Your task to perform on an android device: clear all cookies in the chrome app Image 0: 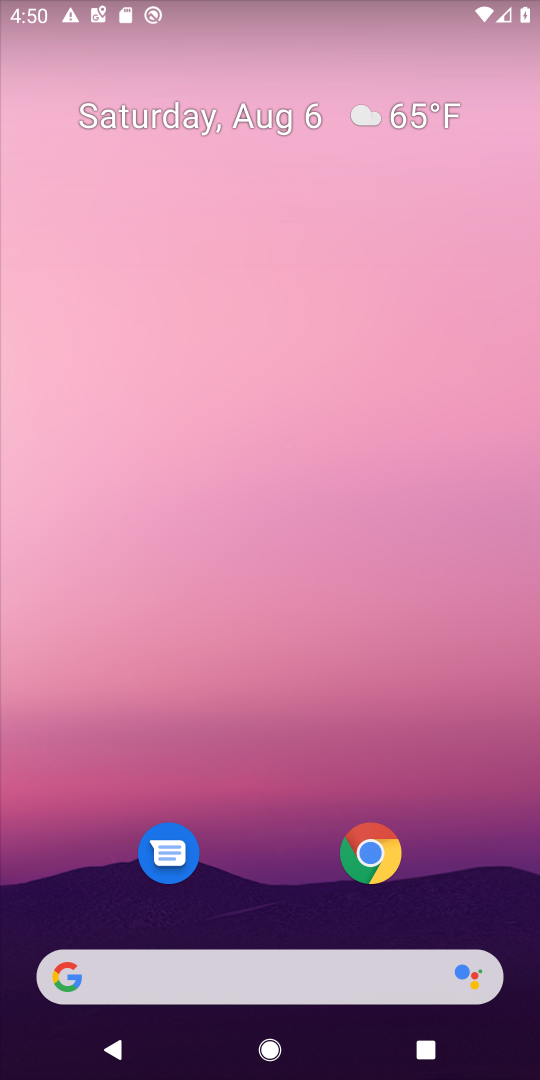
Step 0: click (355, 851)
Your task to perform on an android device: clear all cookies in the chrome app Image 1: 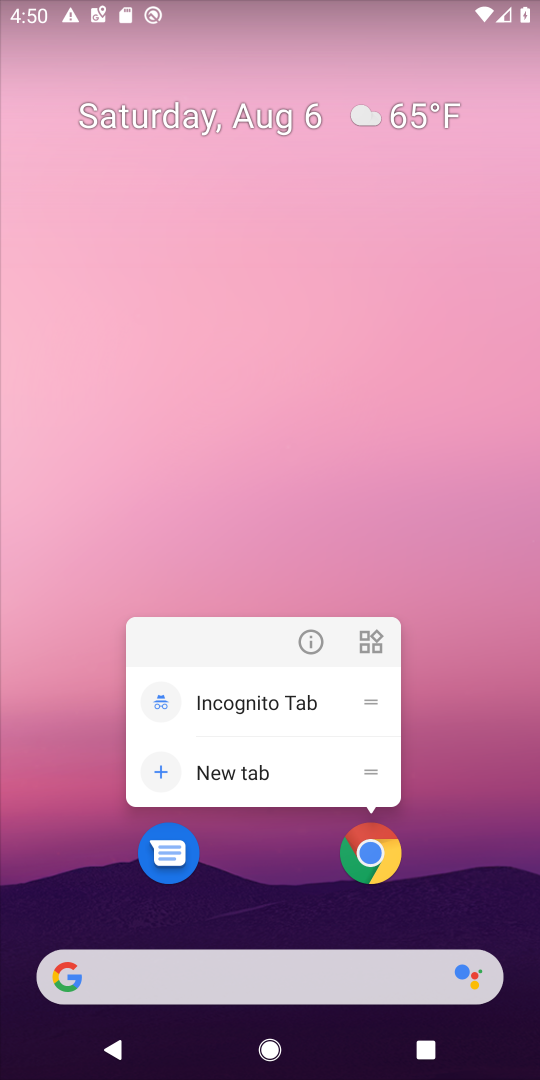
Step 1: click (368, 857)
Your task to perform on an android device: clear all cookies in the chrome app Image 2: 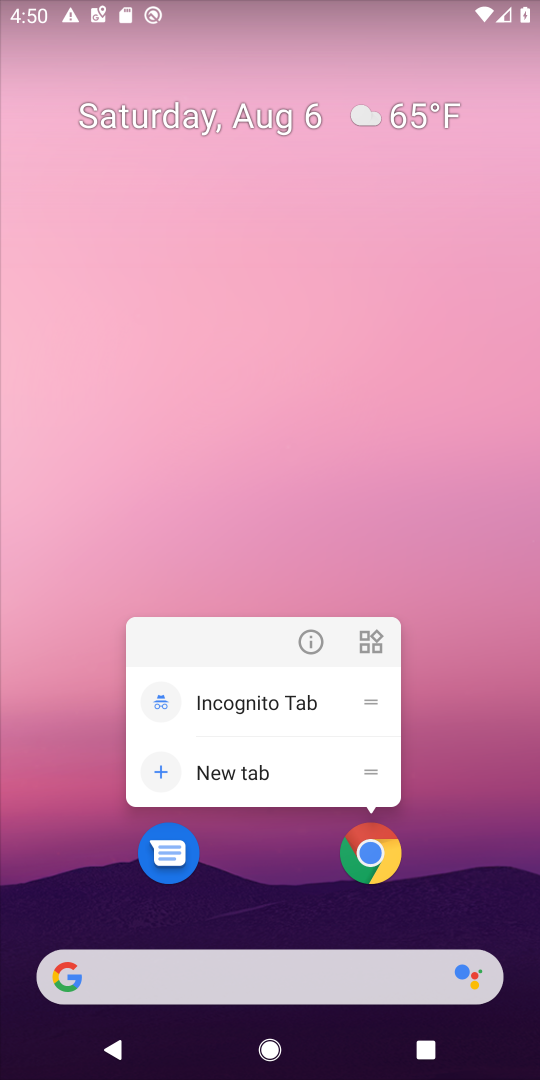
Step 2: click (388, 846)
Your task to perform on an android device: clear all cookies in the chrome app Image 3: 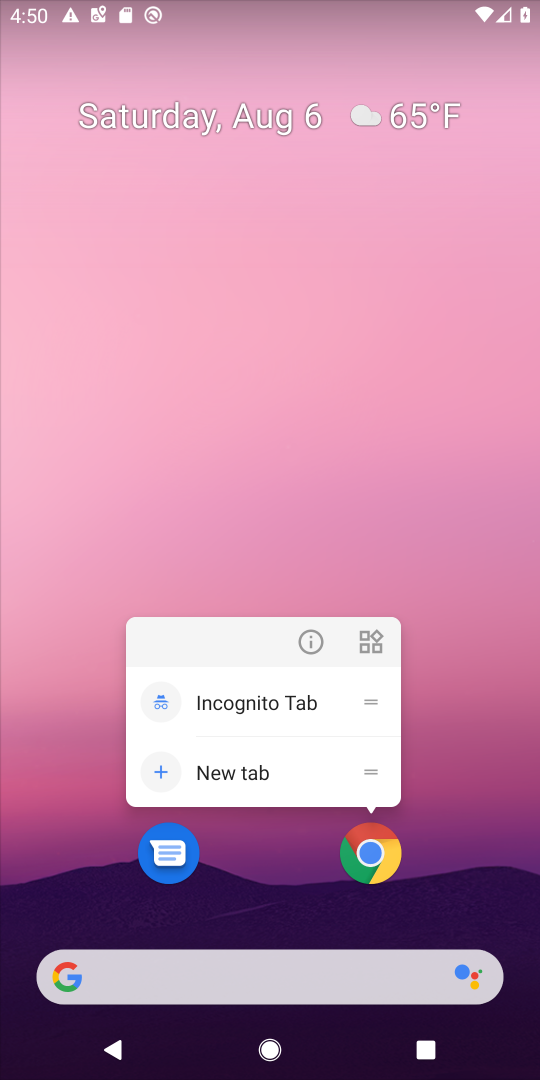
Step 3: click (364, 857)
Your task to perform on an android device: clear all cookies in the chrome app Image 4: 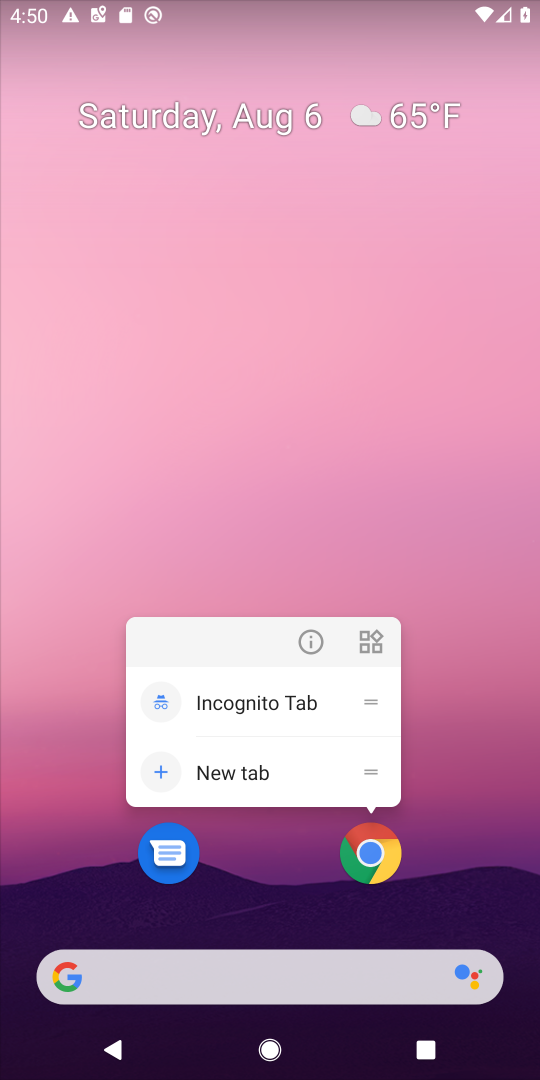
Step 4: click (372, 864)
Your task to perform on an android device: clear all cookies in the chrome app Image 5: 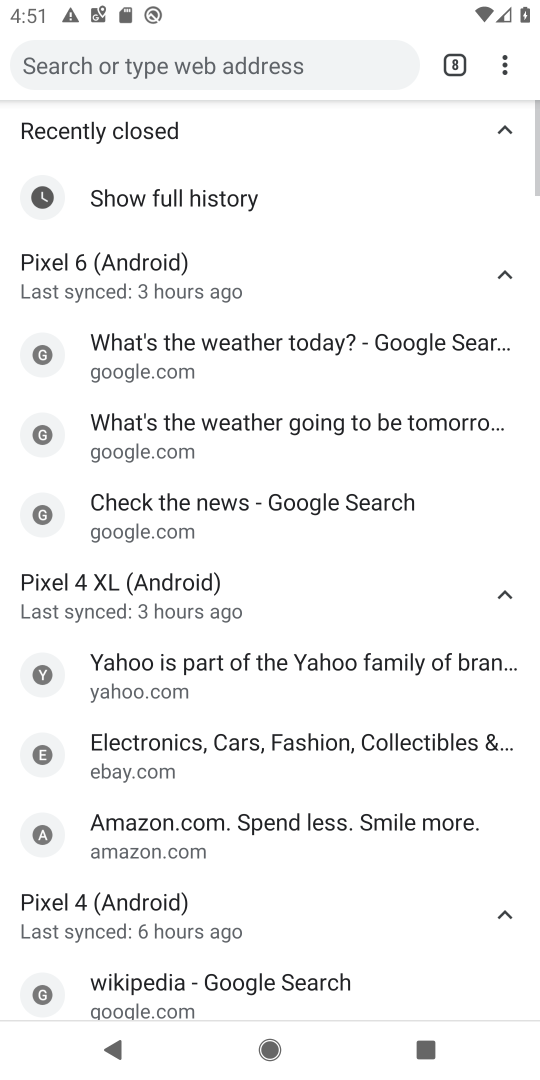
Step 5: task complete